Your task to perform on an android device: set the stopwatch Image 0: 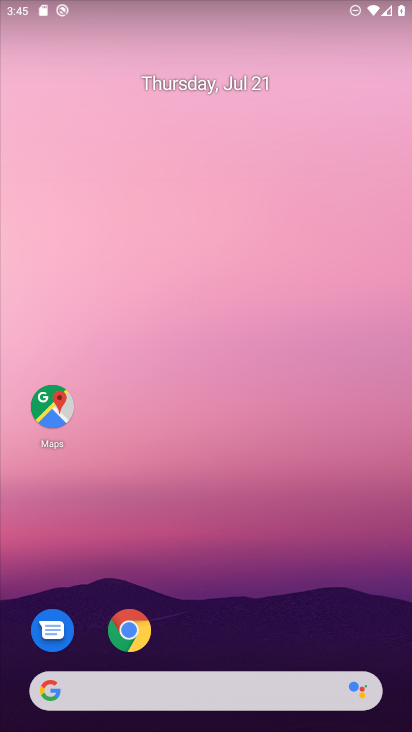
Step 0: drag from (204, 656) to (167, 147)
Your task to perform on an android device: set the stopwatch Image 1: 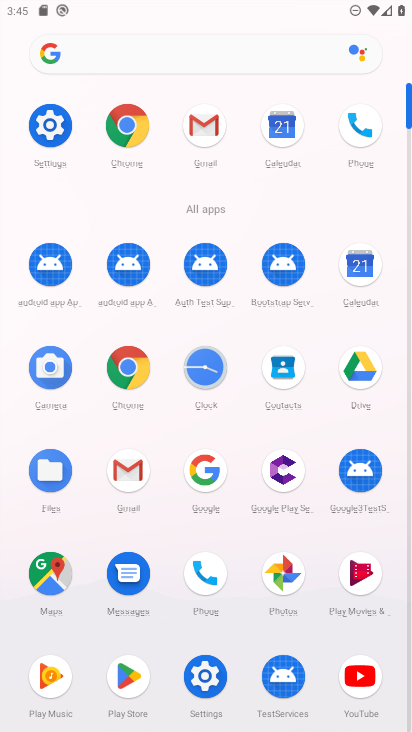
Step 1: click (200, 378)
Your task to perform on an android device: set the stopwatch Image 2: 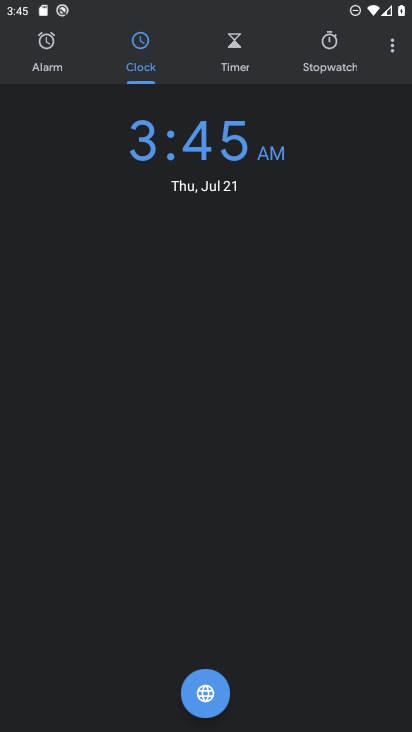
Step 2: click (386, 40)
Your task to perform on an android device: set the stopwatch Image 3: 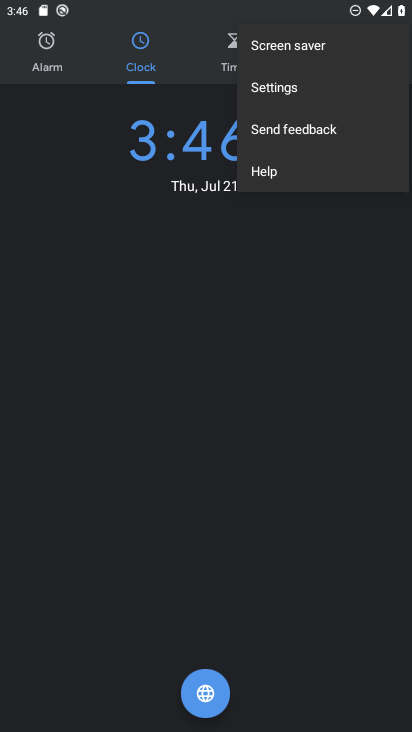
Step 3: click (229, 239)
Your task to perform on an android device: set the stopwatch Image 4: 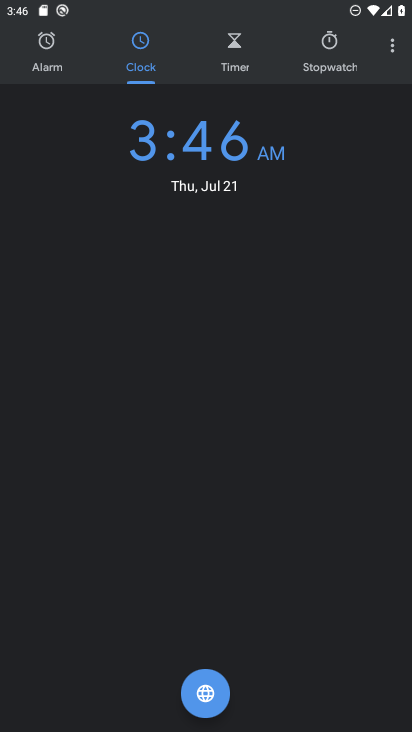
Step 4: click (319, 60)
Your task to perform on an android device: set the stopwatch Image 5: 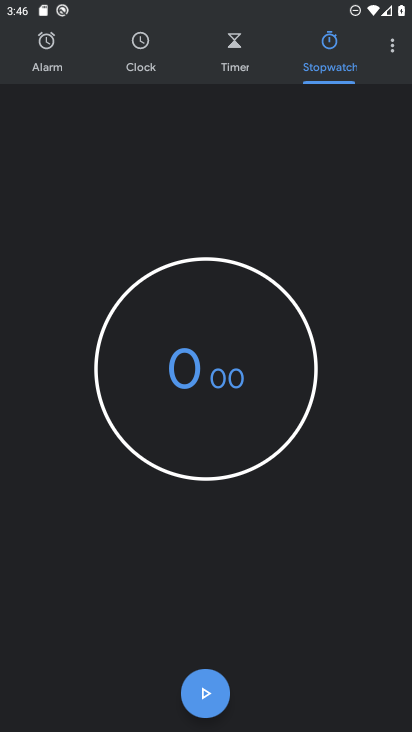
Step 5: task complete